Your task to perform on an android device: add a label to a message in the gmail app Image 0: 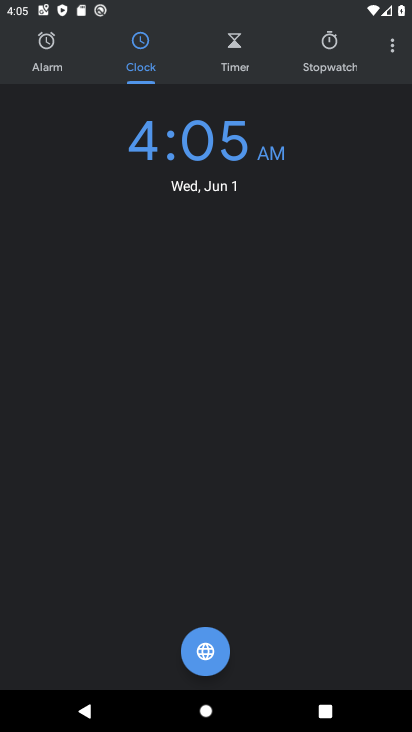
Step 0: press home button
Your task to perform on an android device: add a label to a message in the gmail app Image 1: 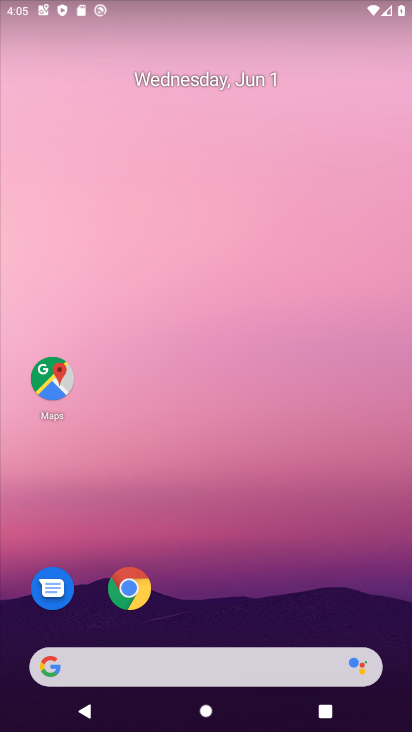
Step 1: drag from (252, 608) to (200, 260)
Your task to perform on an android device: add a label to a message in the gmail app Image 2: 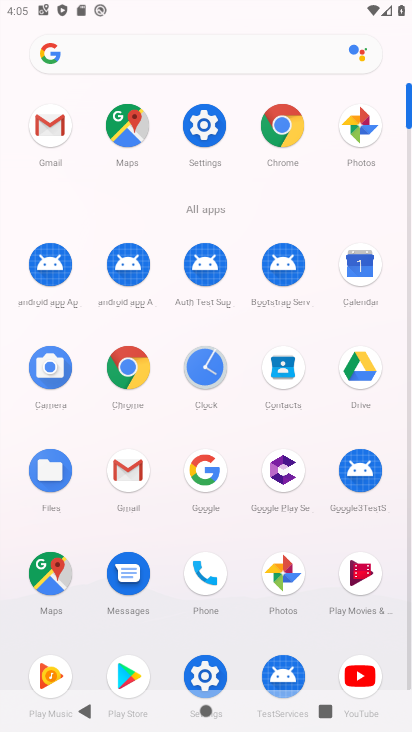
Step 2: click (51, 143)
Your task to perform on an android device: add a label to a message in the gmail app Image 3: 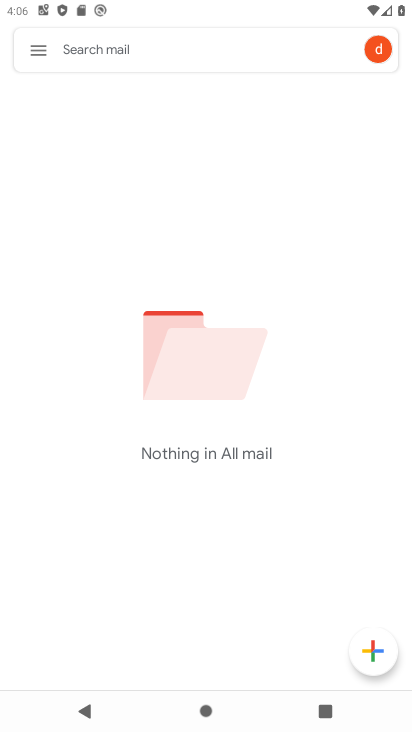
Step 3: task complete